Your task to perform on an android device: turn on javascript in the chrome app Image 0: 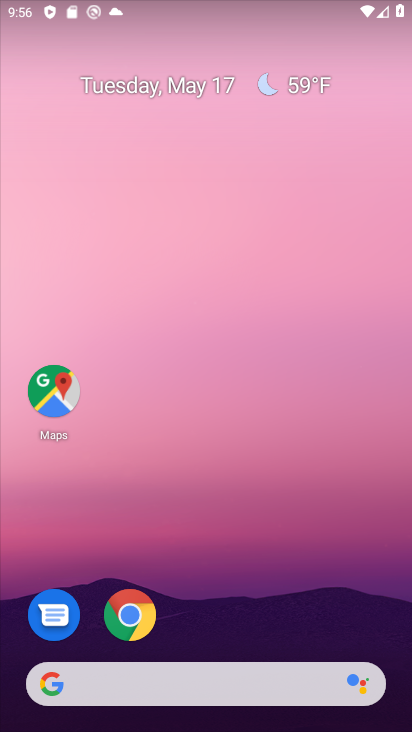
Step 0: click (141, 619)
Your task to perform on an android device: turn on javascript in the chrome app Image 1: 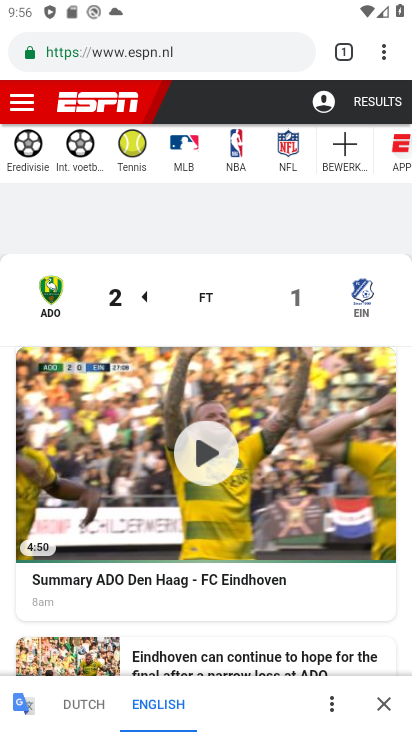
Step 1: drag from (385, 59) to (243, 621)
Your task to perform on an android device: turn on javascript in the chrome app Image 2: 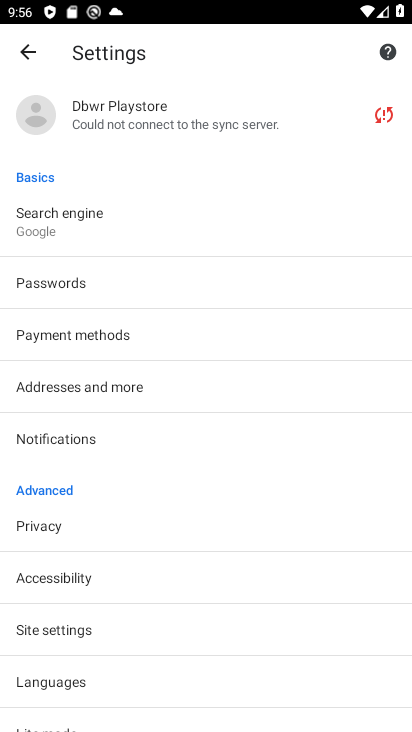
Step 2: click (85, 633)
Your task to perform on an android device: turn on javascript in the chrome app Image 3: 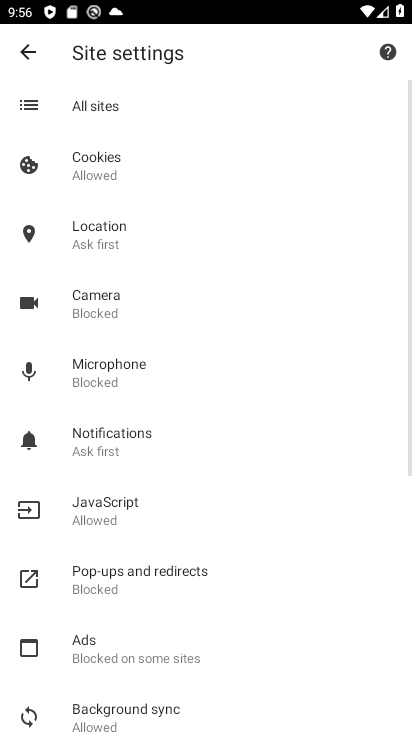
Step 3: click (94, 513)
Your task to perform on an android device: turn on javascript in the chrome app Image 4: 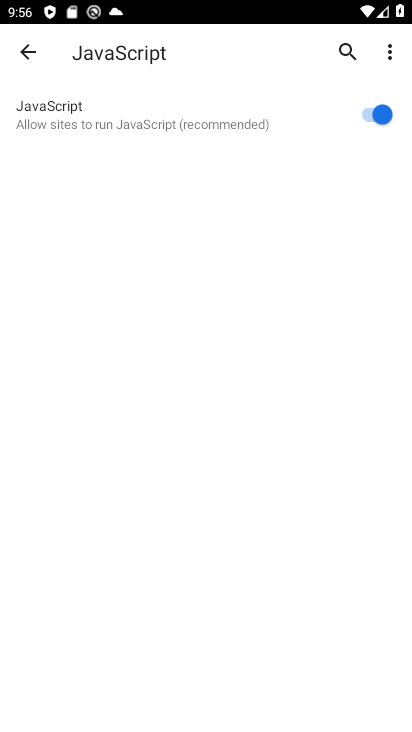
Step 4: task complete